Your task to perform on an android device: Go to Reddit.com Image 0: 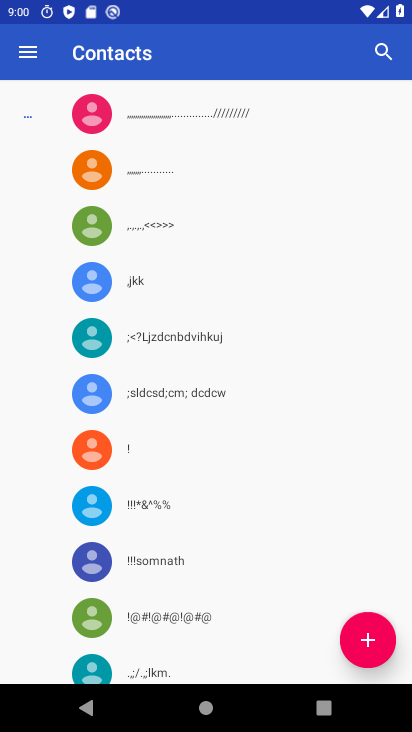
Step 0: press home button
Your task to perform on an android device: Go to Reddit.com Image 1: 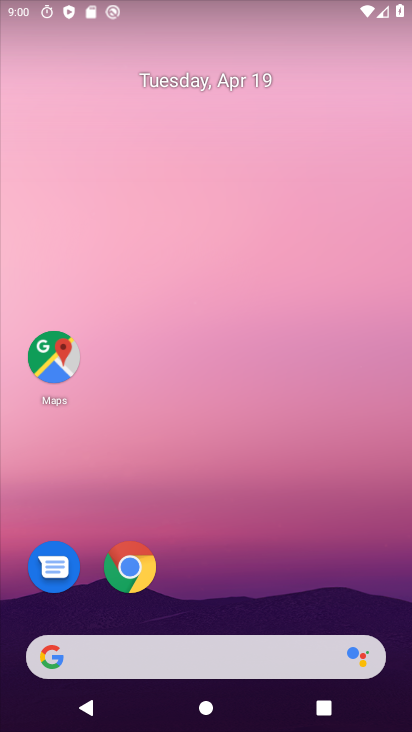
Step 1: click (130, 565)
Your task to perform on an android device: Go to Reddit.com Image 2: 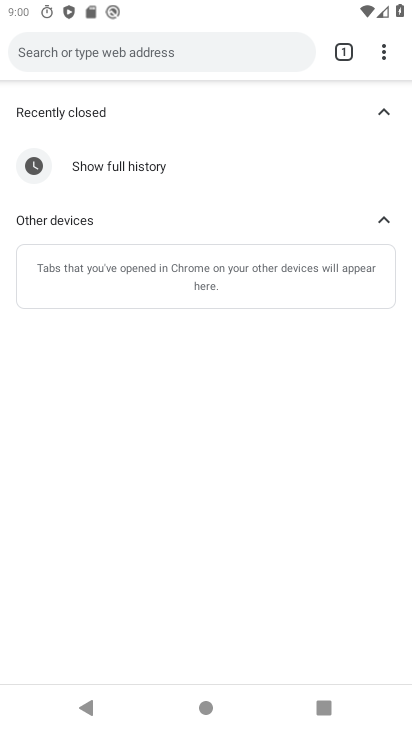
Step 2: click (226, 52)
Your task to perform on an android device: Go to Reddit.com Image 3: 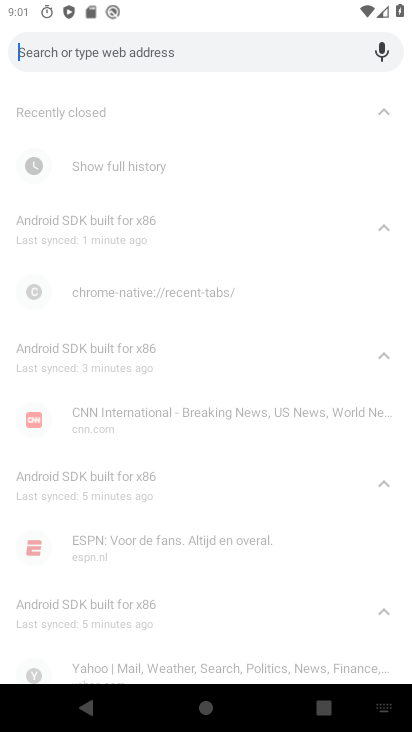
Step 3: type "Reddit.com"
Your task to perform on an android device: Go to Reddit.com Image 4: 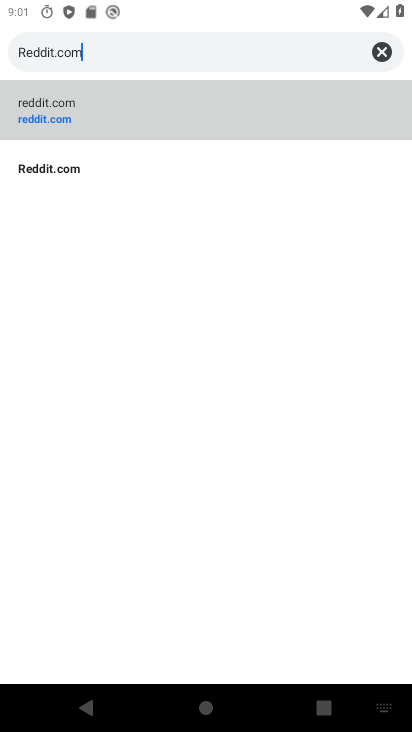
Step 4: click (57, 108)
Your task to perform on an android device: Go to Reddit.com Image 5: 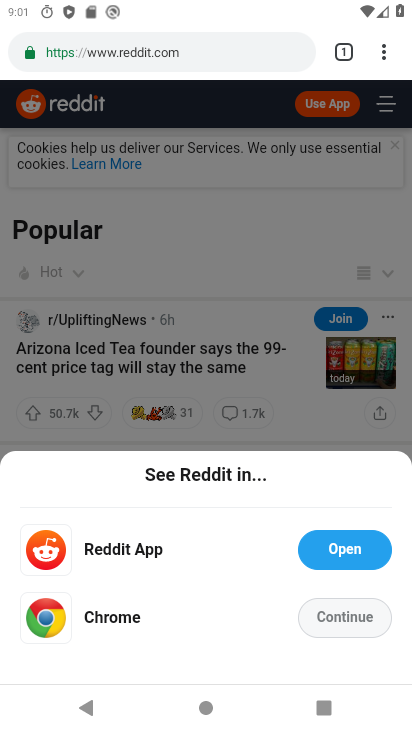
Step 5: task complete